Your task to perform on an android device: What's on my calendar today? Image 0: 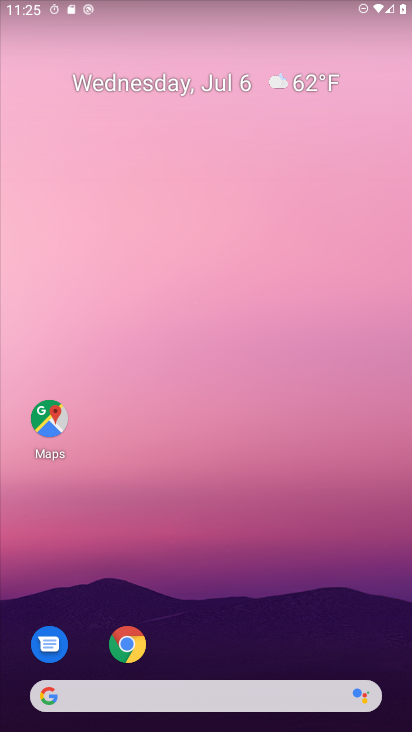
Step 0: drag from (337, 529) to (297, 129)
Your task to perform on an android device: What's on my calendar today? Image 1: 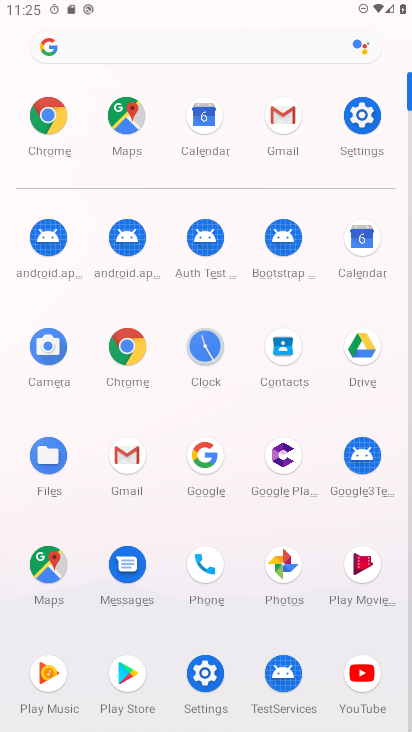
Step 1: click (208, 128)
Your task to perform on an android device: What's on my calendar today? Image 2: 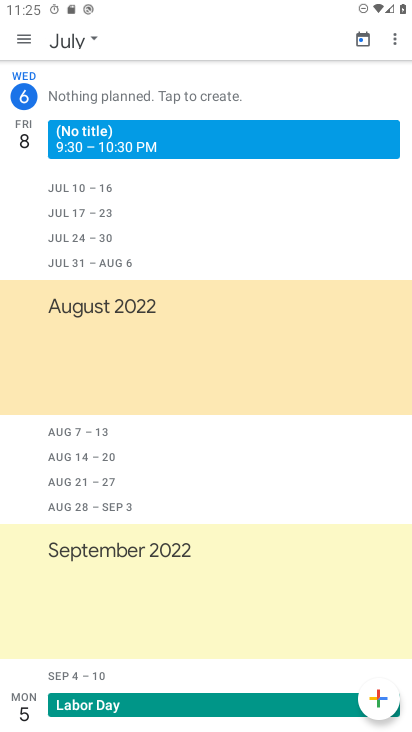
Step 2: press back button
Your task to perform on an android device: What's on my calendar today? Image 3: 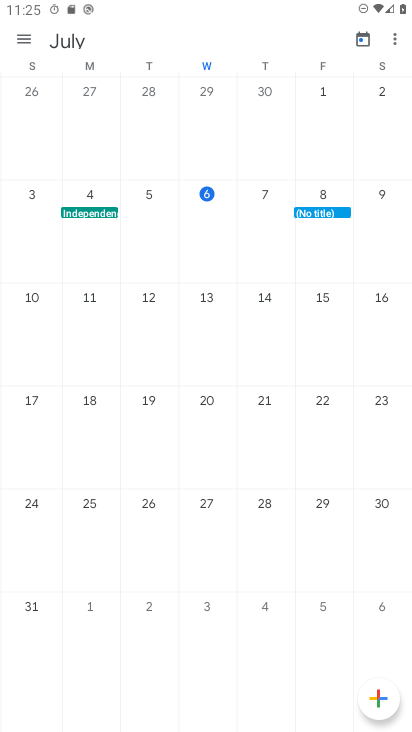
Step 3: drag from (330, 342) to (37, 257)
Your task to perform on an android device: What's on my calendar today? Image 4: 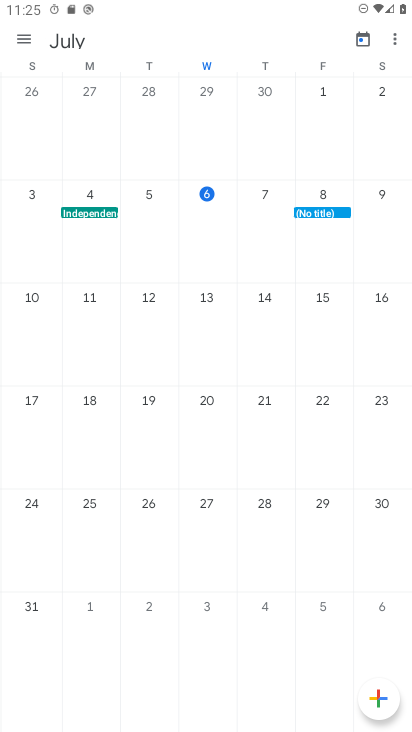
Step 4: drag from (352, 289) to (20, 195)
Your task to perform on an android device: What's on my calendar today? Image 5: 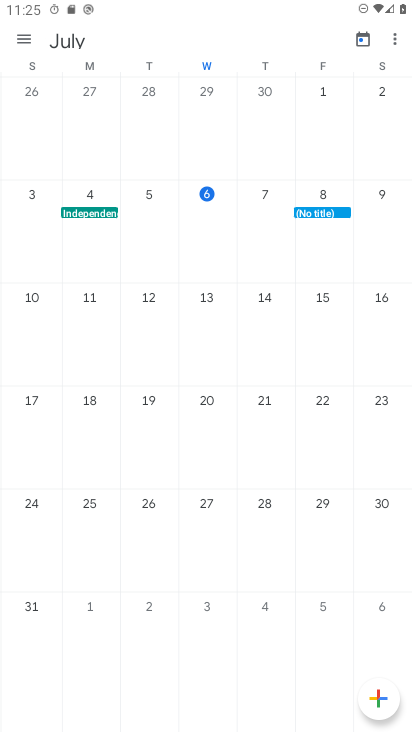
Step 5: drag from (354, 279) to (74, 315)
Your task to perform on an android device: What's on my calendar today? Image 6: 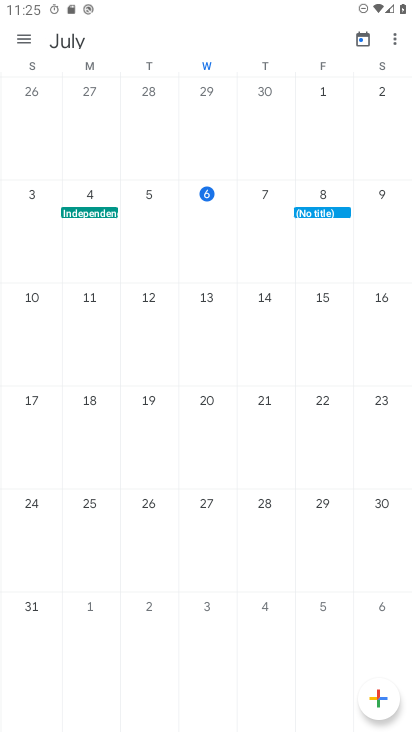
Step 6: drag from (377, 453) to (1, 494)
Your task to perform on an android device: What's on my calendar today? Image 7: 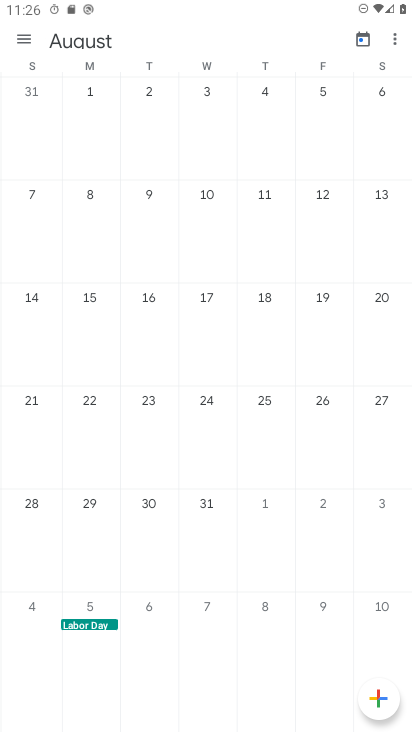
Step 7: drag from (43, 211) to (407, 233)
Your task to perform on an android device: What's on my calendar today? Image 8: 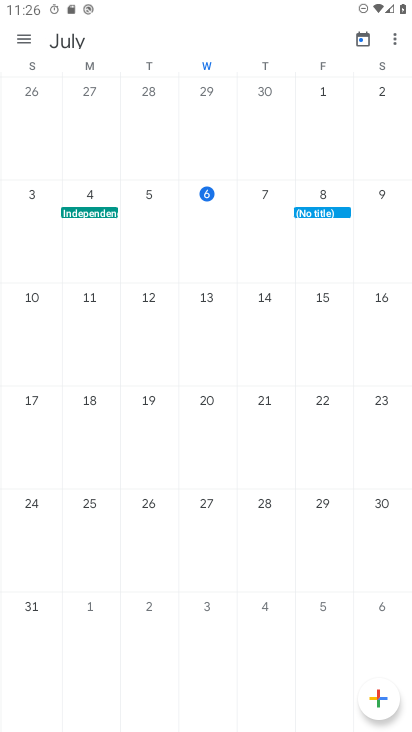
Step 8: click (201, 187)
Your task to perform on an android device: What's on my calendar today? Image 9: 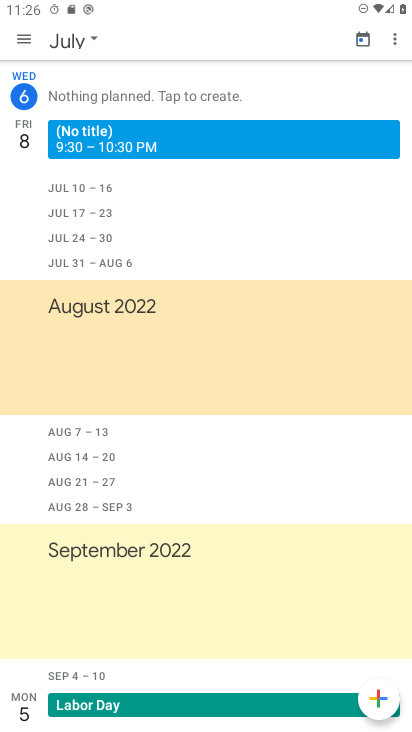
Step 9: task complete